Your task to perform on an android device: turn off airplane mode Image 0: 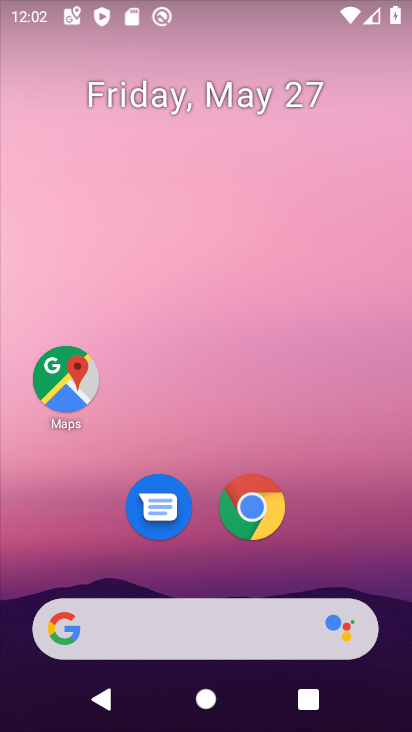
Step 0: drag from (317, 551) to (344, 122)
Your task to perform on an android device: turn off airplane mode Image 1: 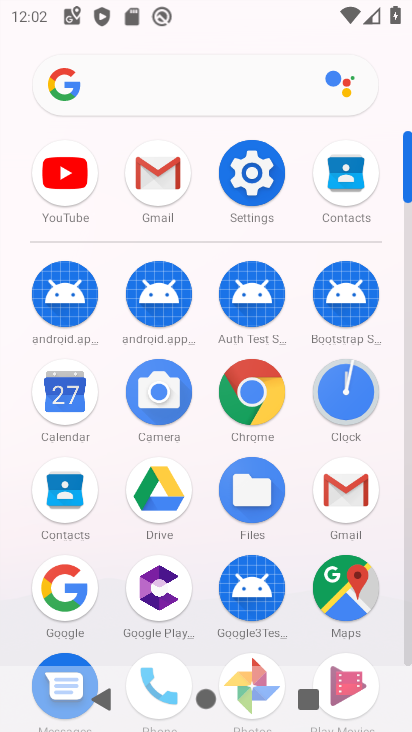
Step 1: click (270, 170)
Your task to perform on an android device: turn off airplane mode Image 2: 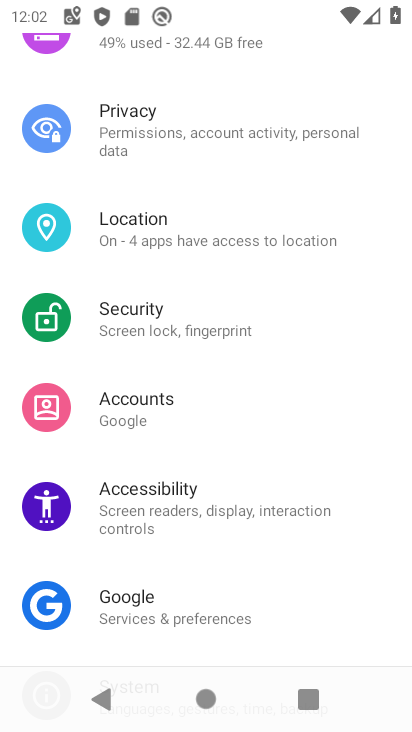
Step 2: drag from (219, 124) to (274, 597)
Your task to perform on an android device: turn off airplane mode Image 3: 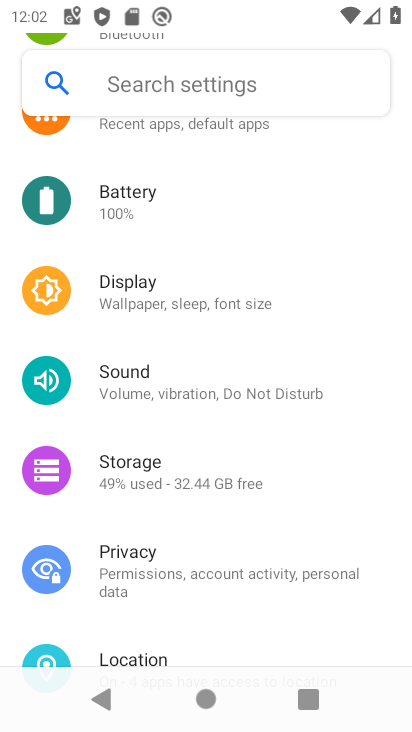
Step 3: drag from (237, 236) to (248, 497)
Your task to perform on an android device: turn off airplane mode Image 4: 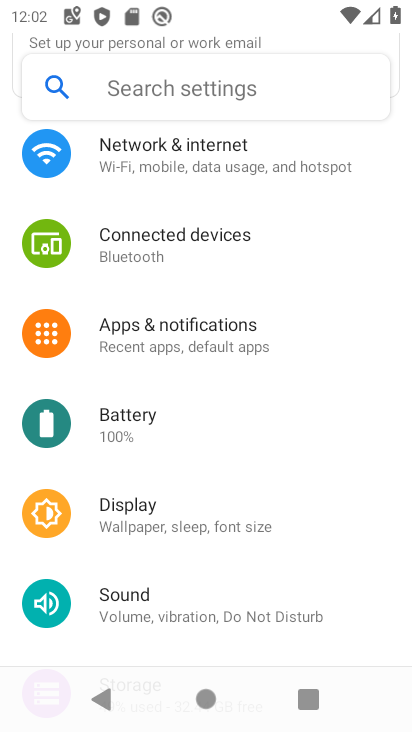
Step 4: drag from (181, 211) to (207, 592)
Your task to perform on an android device: turn off airplane mode Image 5: 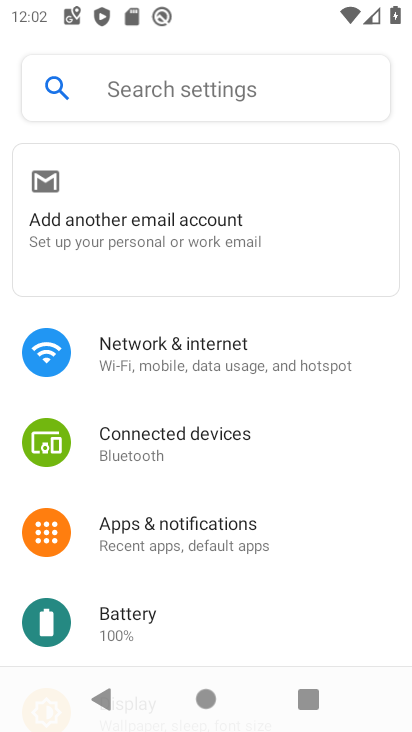
Step 5: click (159, 359)
Your task to perform on an android device: turn off airplane mode Image 6: 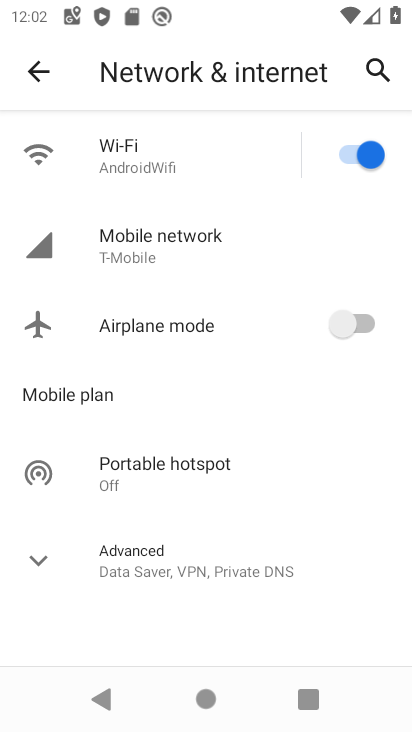
Step 6: task complete